Your task to perform on an android device: Go to Yahoo.com Image 0: 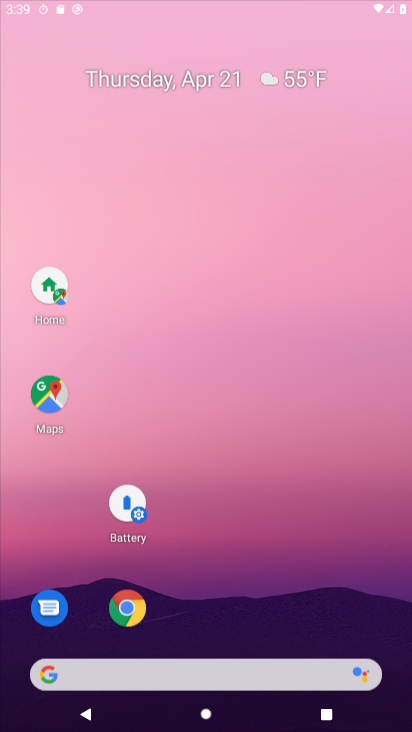
Step 0: drag from (321, 232) to (333, 124)
Your task to perform on an android device: Go to Yahoo.com Image 1: 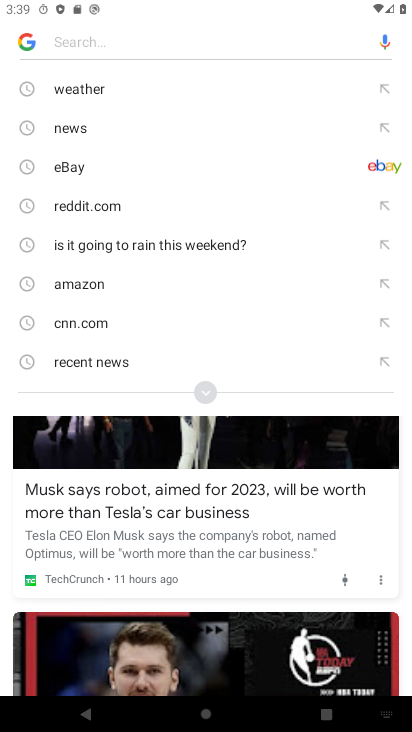
Step 1: press back button
Your task to perform on an android device: Go to Yahoo.com Image 2: 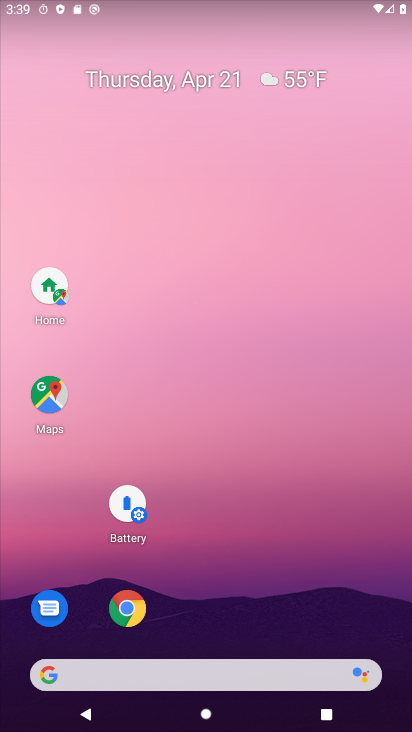
Step 2: click (119, 612)
Your task to perform on an android device: Go to Yahoo.com Image 3: 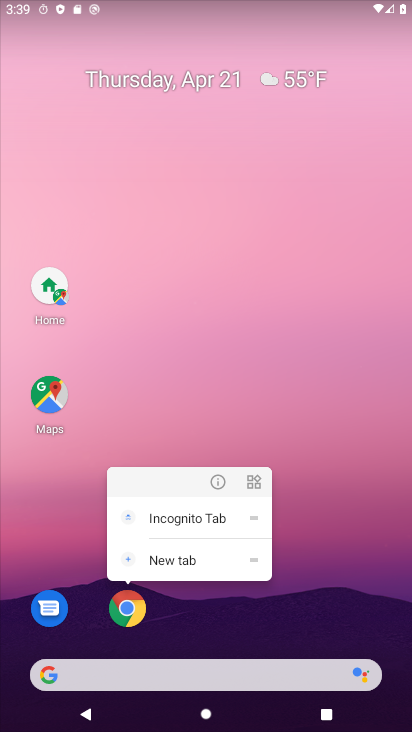
Step 3: click (119, 609)
Your task to perform on an android device: Go to Yahoo.com Image 4: 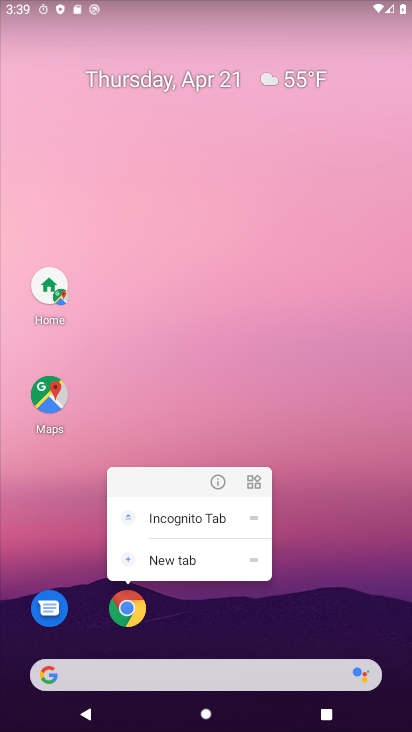
Step 4: click (123, 593)
Your task to perform on an android device: Go to Yahoo.com Image 5: 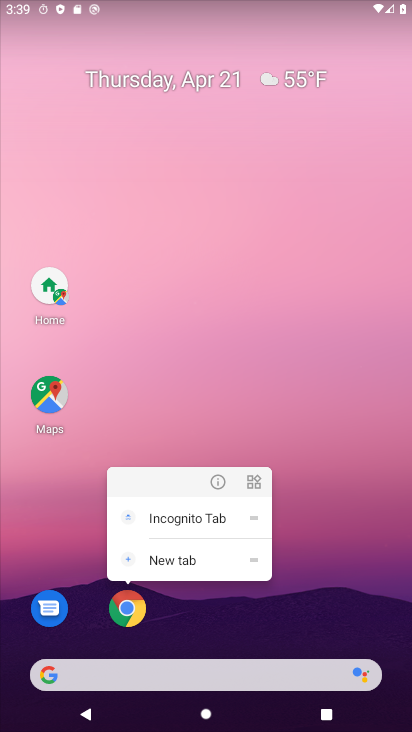
Step 5: click (123, 593)
Your task to perform on an android device: Go to Yahoo.com Image 6: 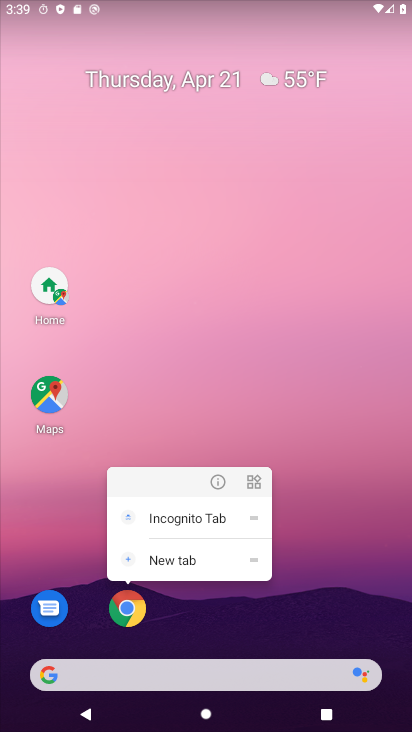
Step 6: click (123, 593)
Your task to perform on an android device: Go to Yahoo.com Image 7: 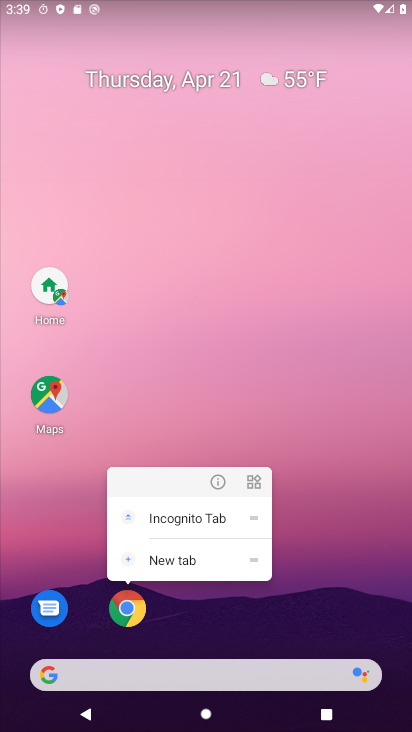
Step 7: click (123, 592)
Your task to perform on an android device: Go to Yahoo.com Image 8: 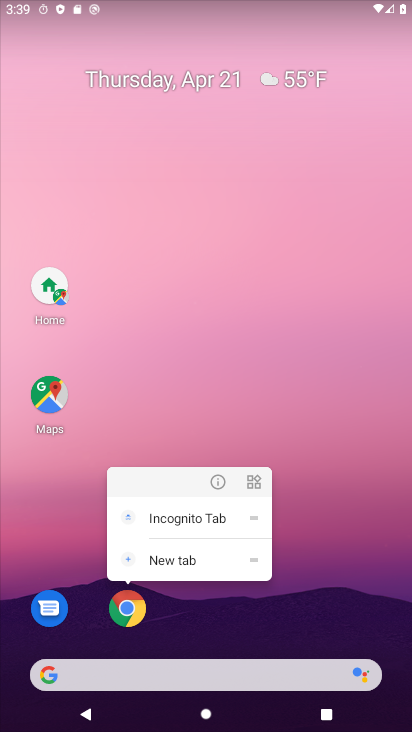
Step 8: click (123, 591)
Your task to perform on an android device: Go to Yahoo.com Image 9: 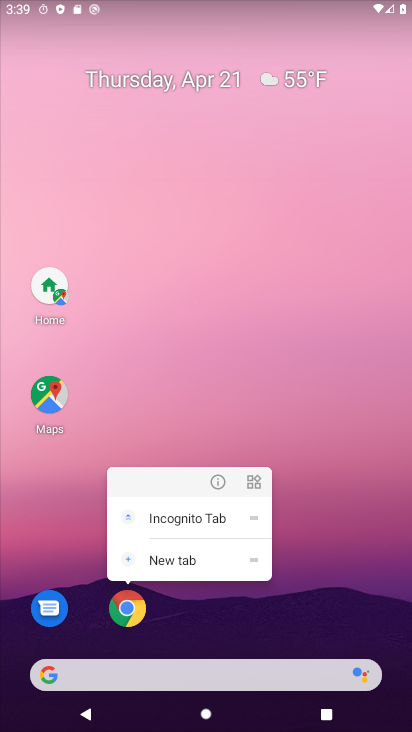
Step 9: click (123, 591)
Your task to perform on an android device: Go to Yahoo.com Image 10: 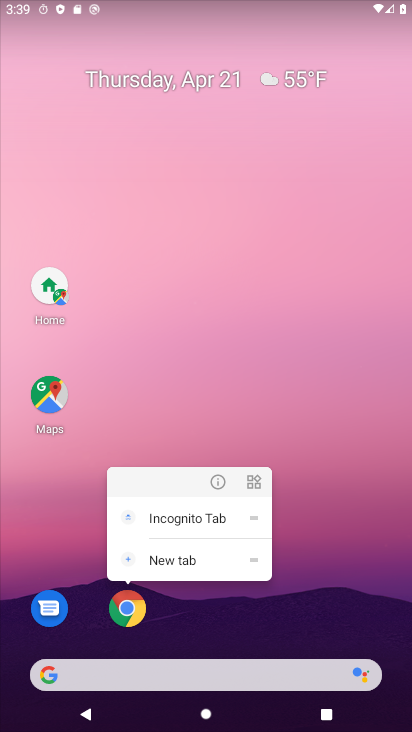
Step 10: click (128, 610)
Your task to perform on an android device: Go to Yahoo.com Image 11: 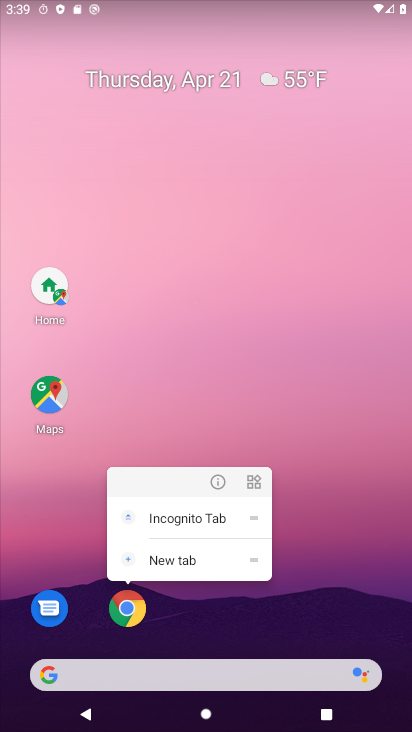
Step 11: click (128, 610)
Your task to perform on an android device: Go to Yahoo.com Image 12: 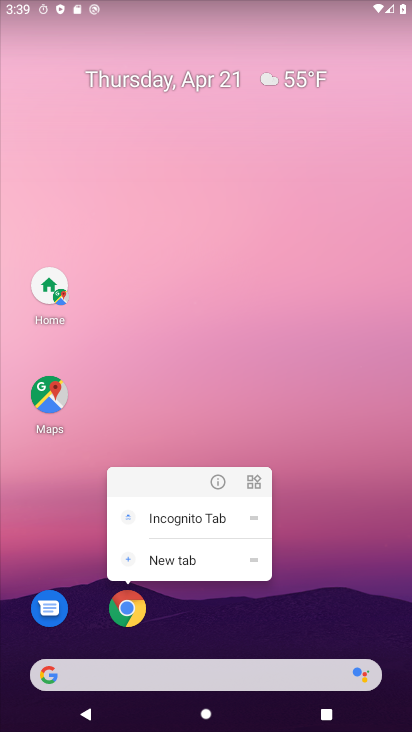
Step 12: click (128, 609)
Your task to perform on an android device: Go to Yahoo.com Image 13: 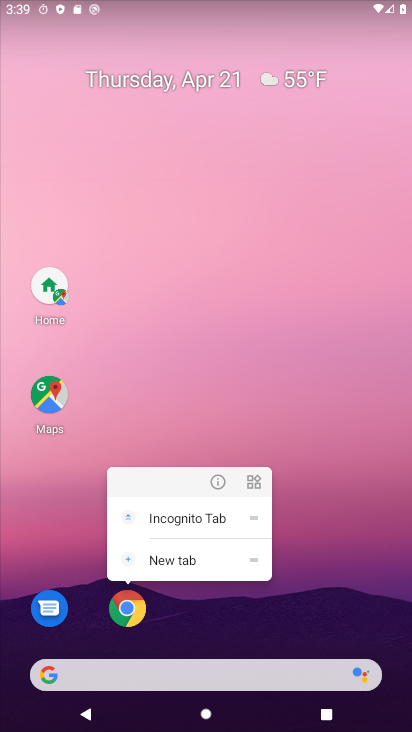
Step 13: click (128, 608)
Your task to perform on an android device: Go to Yahoo.com Image 14: 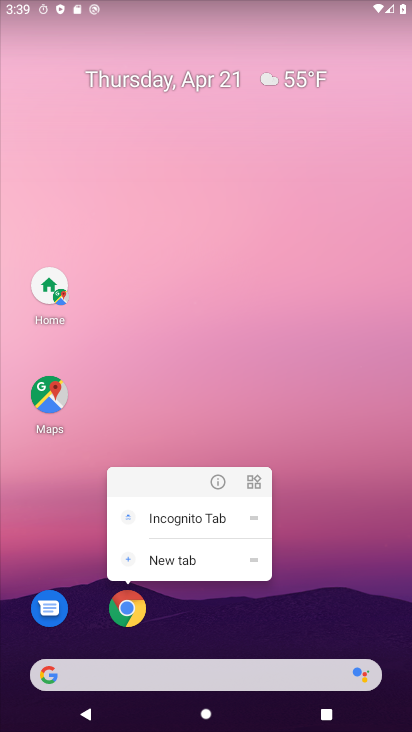
Step 14: click (128, 607)
Your task to perform on an android device: Go to Yahoo.com Image 15: 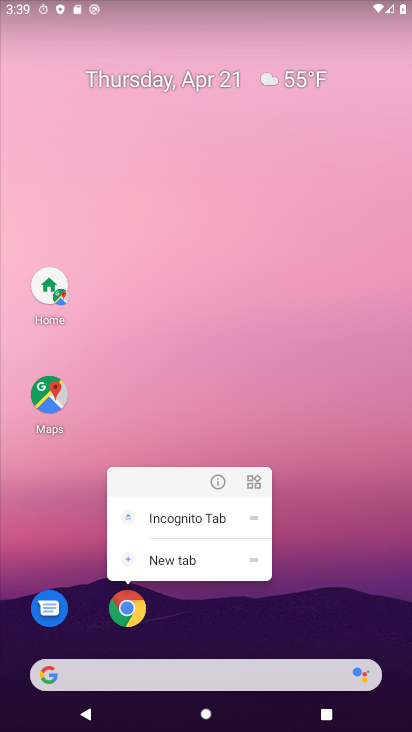
Step 15: click (128, 606)
Your task to perform on an android device: Go to Yahoo.com Image 16: 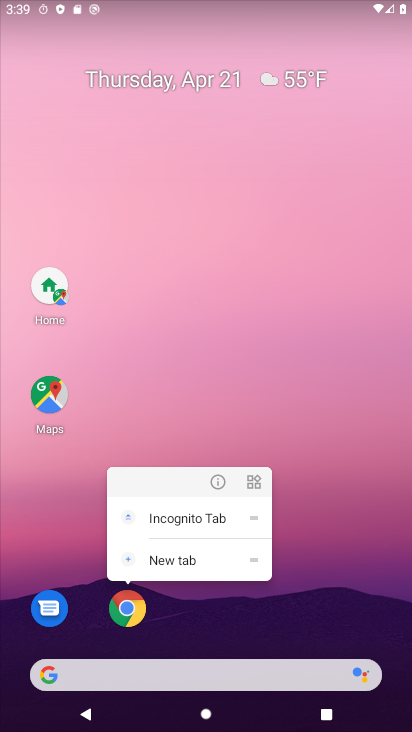
Step 16: click (128, 606)
Your task to perform on an android device: Go to Yahoo.com Image 17: 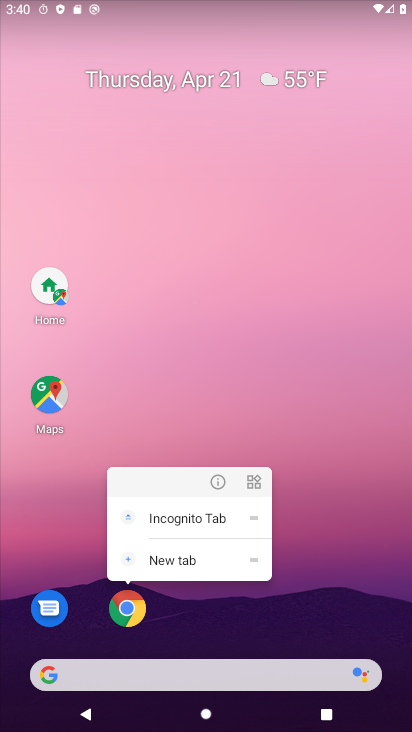
Step 17: click (128, 604)
Your task to perform on an android device: Go to Yahoo.com Image 18: 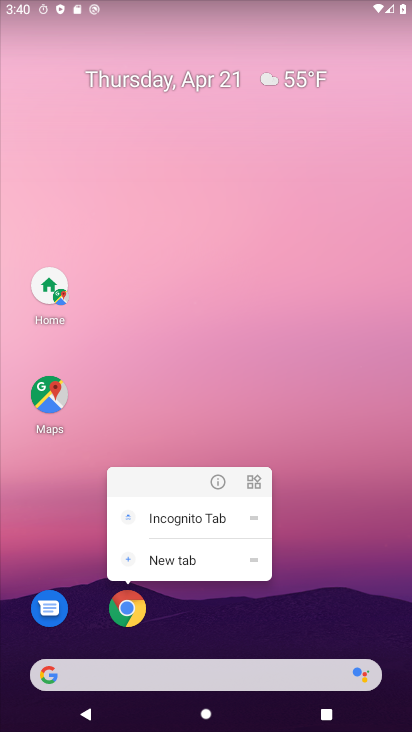
Step 18: click (127, 605)
Your task to perform on an android device: Go to Yahoo.com Image 19: 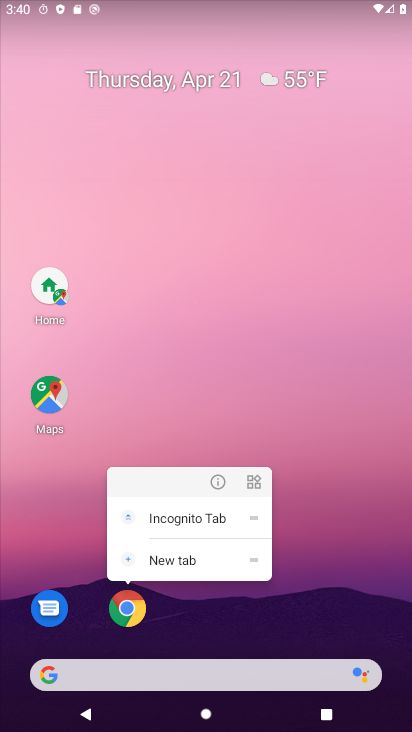
Step 19: click (127, 604)
Your task to perform on an android device: Go to Yahoo.com Image 20: 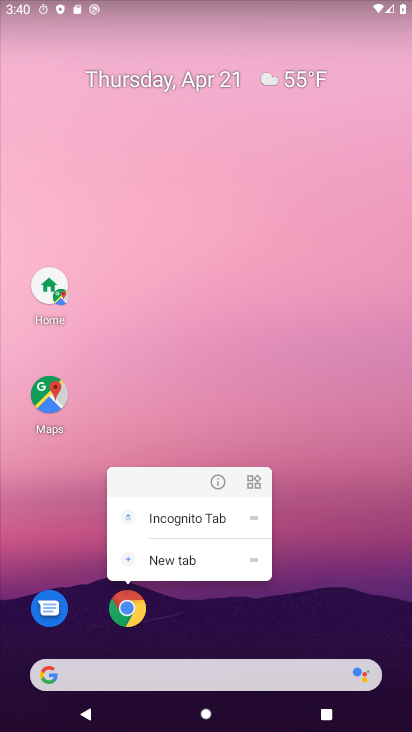
Step 20: click (137, 604)
Your task to perform on an android device: Go to Yahoo.com Image 21: 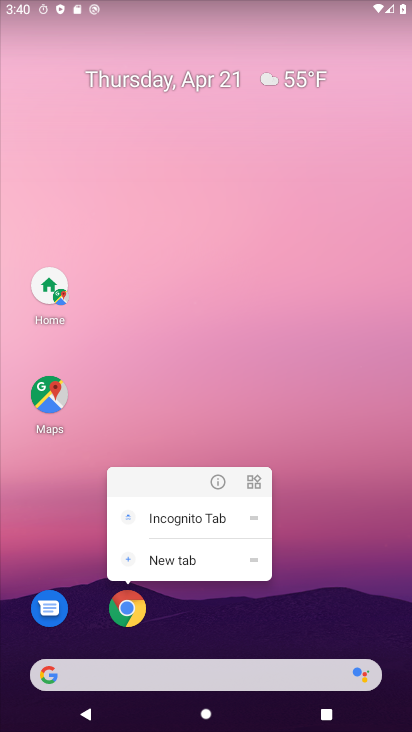
Step 21: click (138, 603)
Your task to perform on an android device: Go to Yahoo.com Image 22: 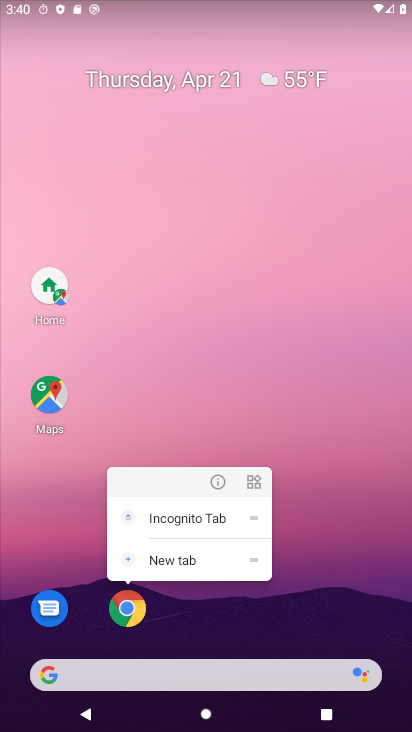
Step 22: click (139, 603)
Your task to perform on an android device: Go to Yahoo.com Image 23: 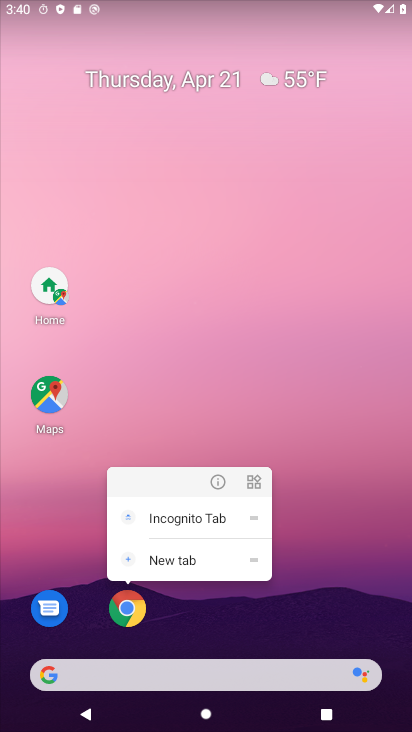
Step 23: click (140, 603)
Your task to perform on an android device: Go to Yahoo.com Image 24: 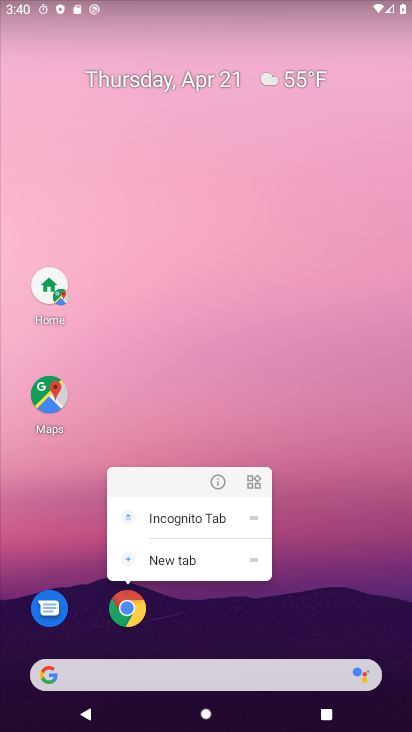
Step 24: click (140, 603)
Your task to perform on an android device: Go to Yahoo.com Image 25: 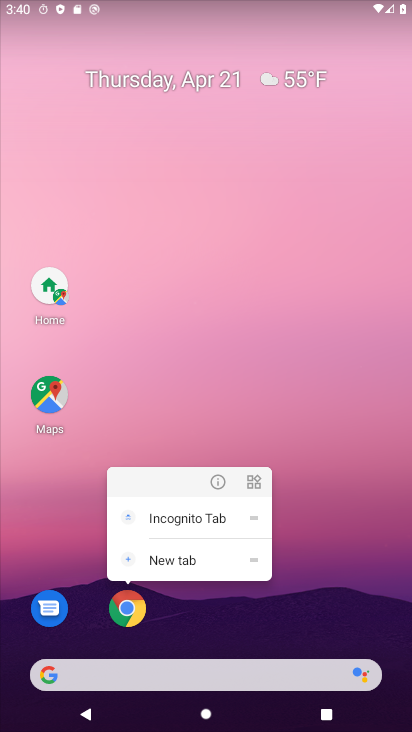
Step 25: click (153, 622)
Your task to perform on an android device: Go to Yahoo.com Image 26: 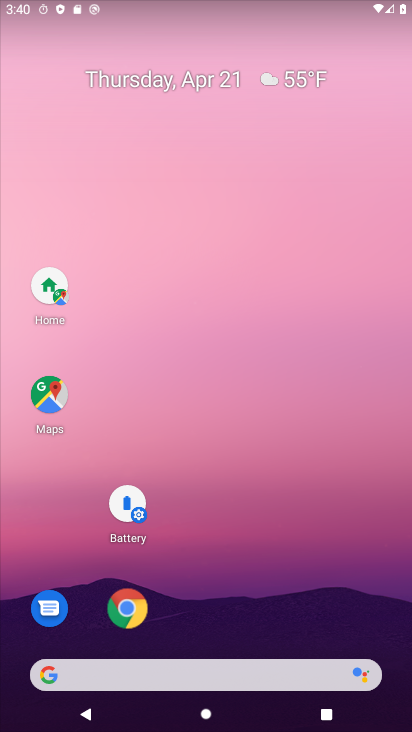
Step 26: click (137, 611)
Your task to perform on an android device: Go to Yahoo.com Image 27: 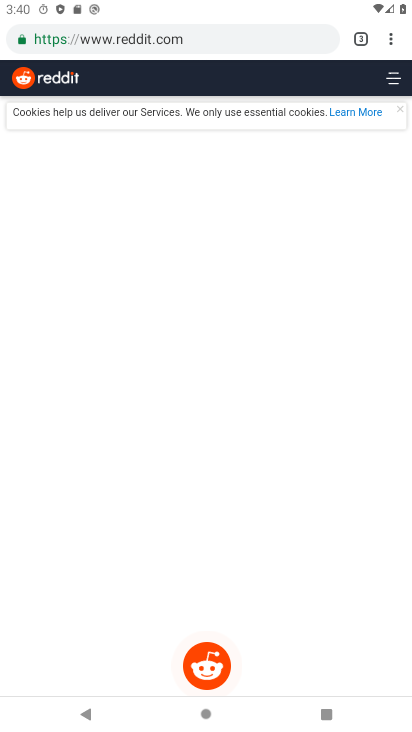
Step 27: click (393, 38)
Your task to perform on an android device: Go to Yahoo.com Image 28: 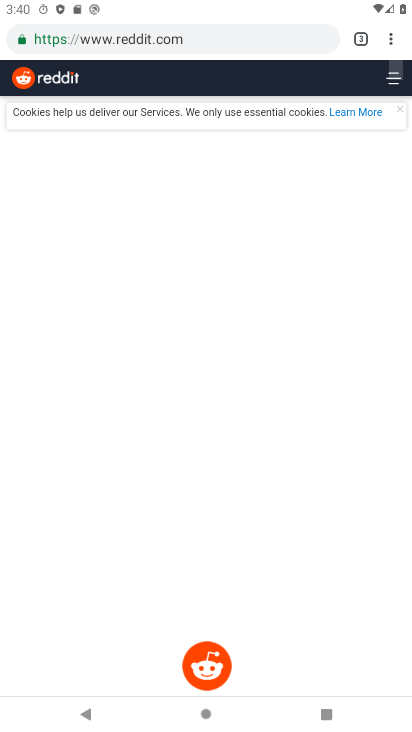
Step 28: drag from (392, 38) to (280, 131)
Your task to perform on an android device: Go to Yahoo.com Image 29: 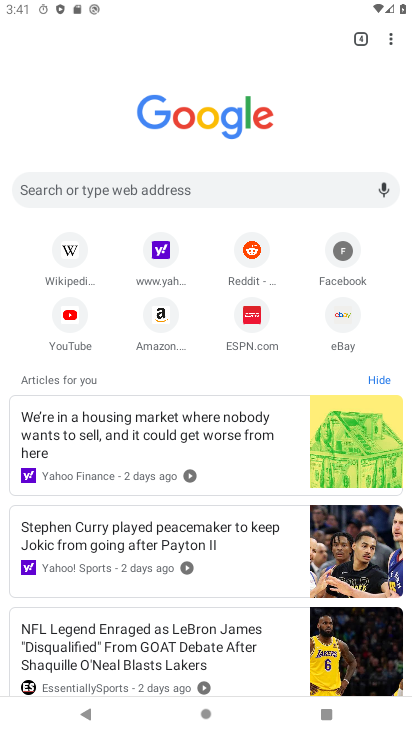
Step 29: click (163, 251)
Your task to perform on an android device: Go to Yahoo.com Image 30: 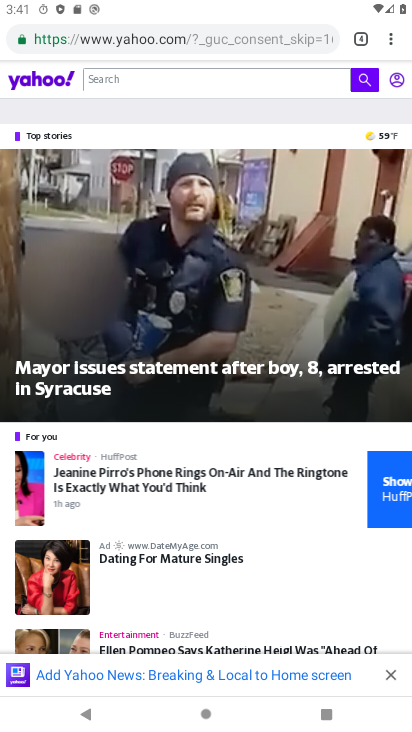
Step 30: task complete